Your task to perform on an android device: remove spam from my inbox in the gmail app Image 0: 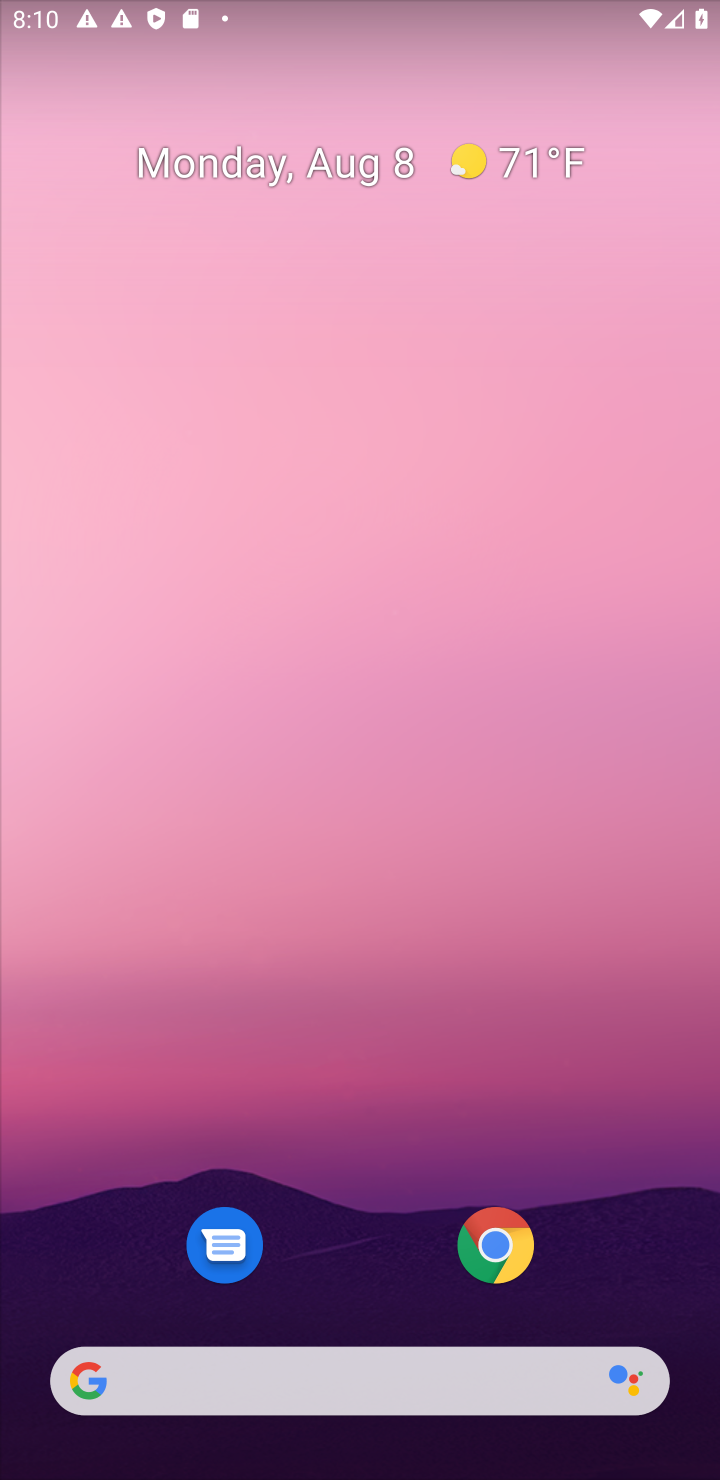
Step 0: drag from (335, 1176) to (501, 18)
Your task to perform on an android device: remove spam from my inbox in the gmail app Image 1: 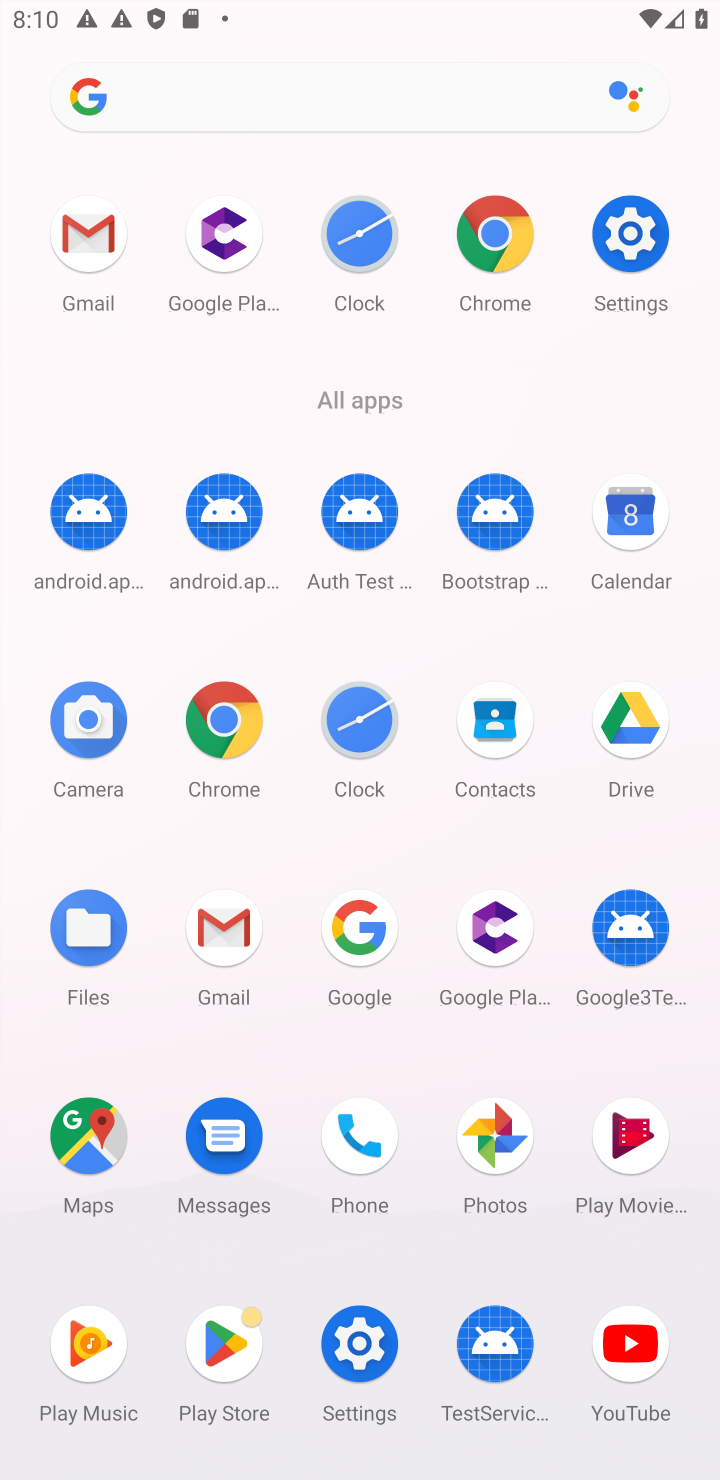
Step 1: click (216, 1079)
Your task to perform on an android device: remove spam from my inbox in the gmail app Image 2: 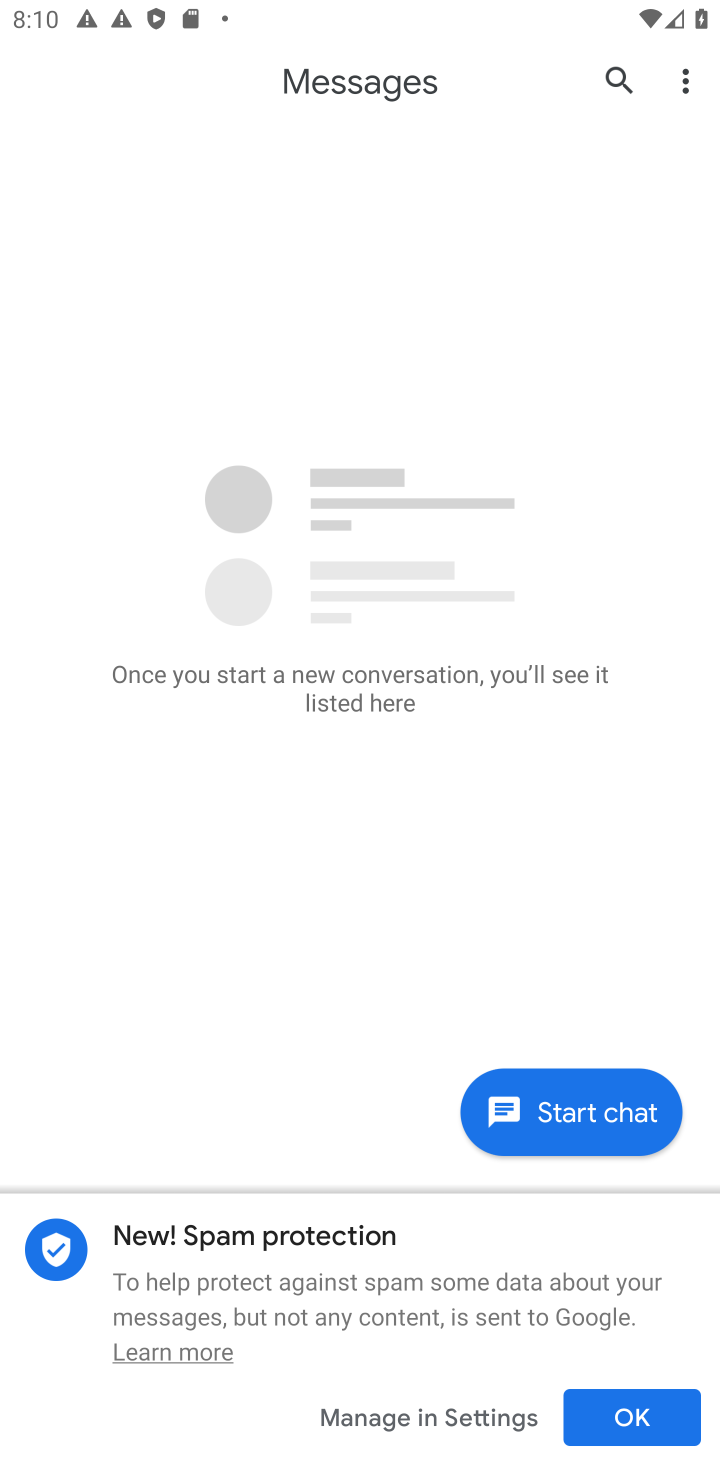
Step 2: click (223, 938)
Your task to perform on an android device: remove spam from my inbox in the gmail app Image 3: 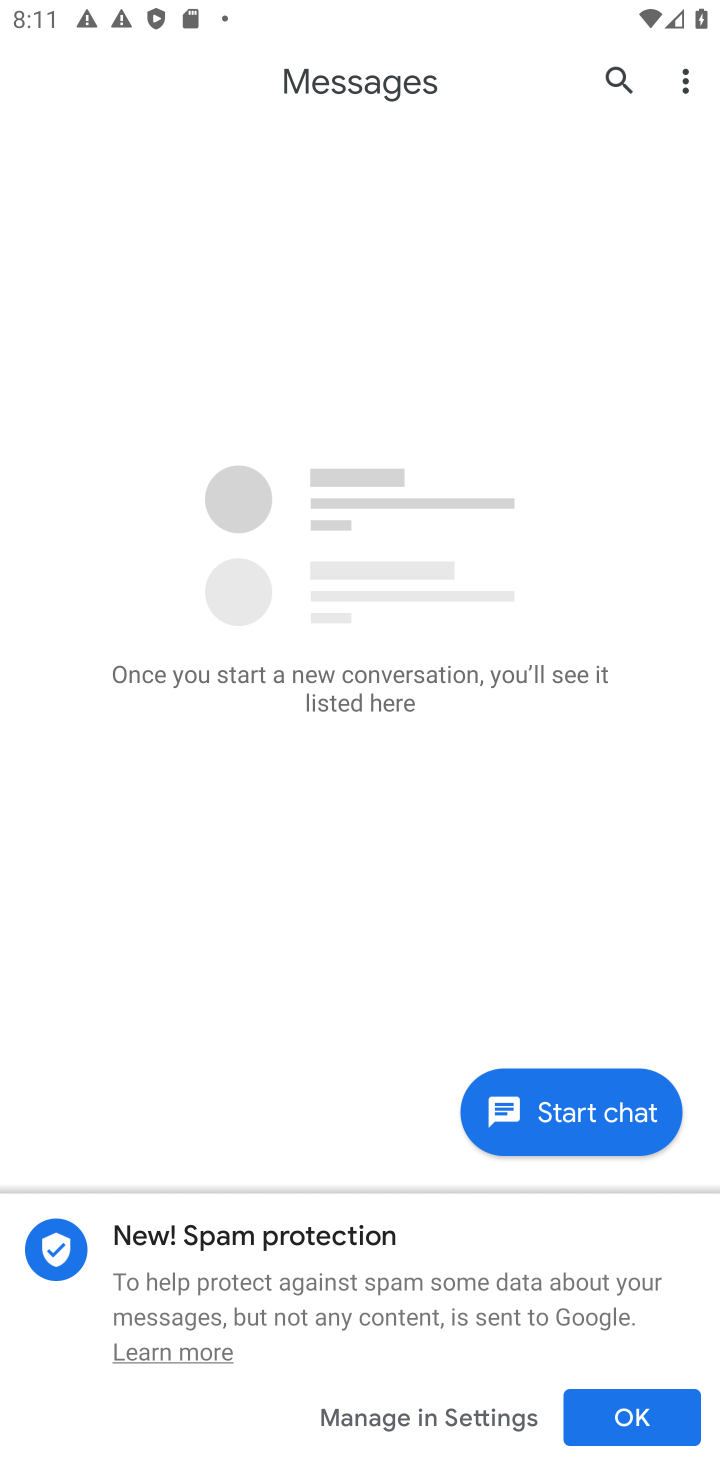
Step 3: press home button
Your task to perform on an android device: remove spam from my inbox in the gmail app Image 4: 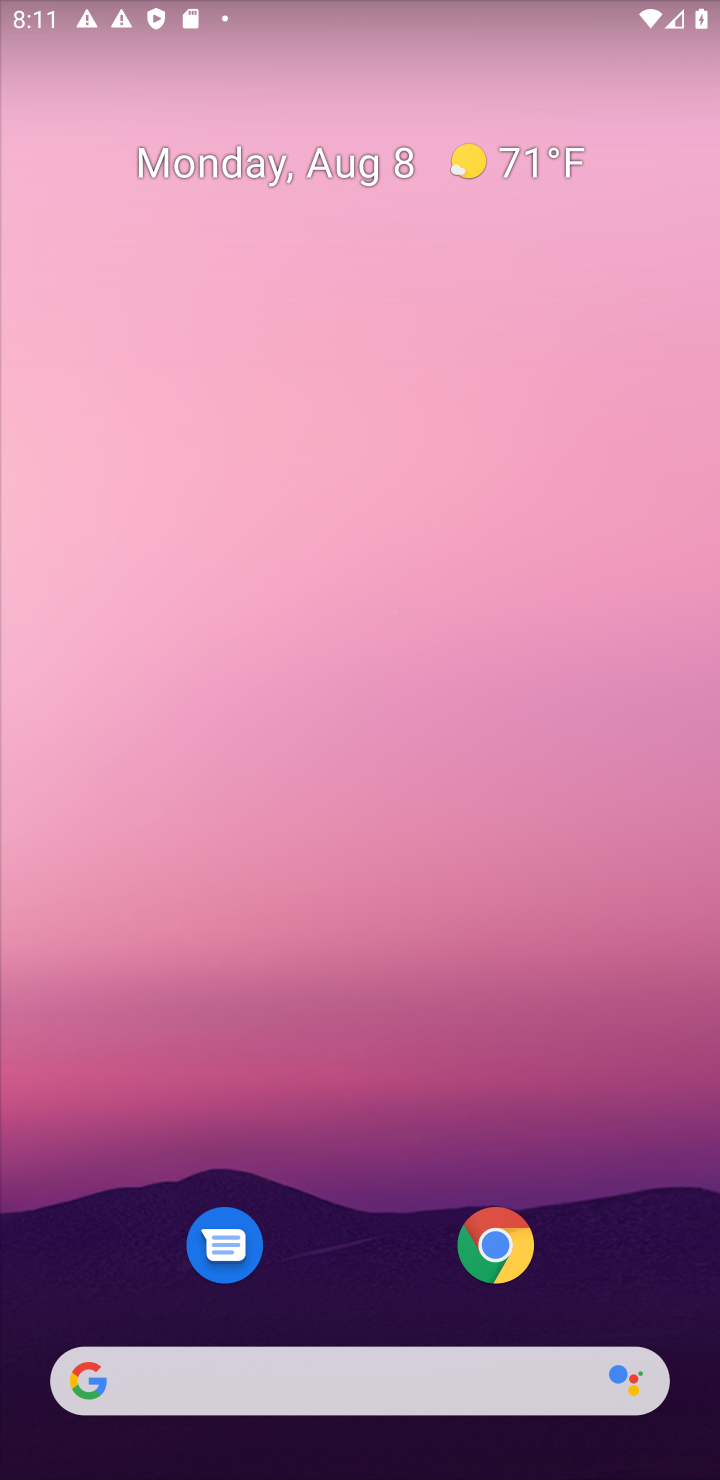
Step 4: drag from (291, 1081) to (439, 2)
Your task to perform on an android device: remove spam from my inbox in the gmail app Image 5: 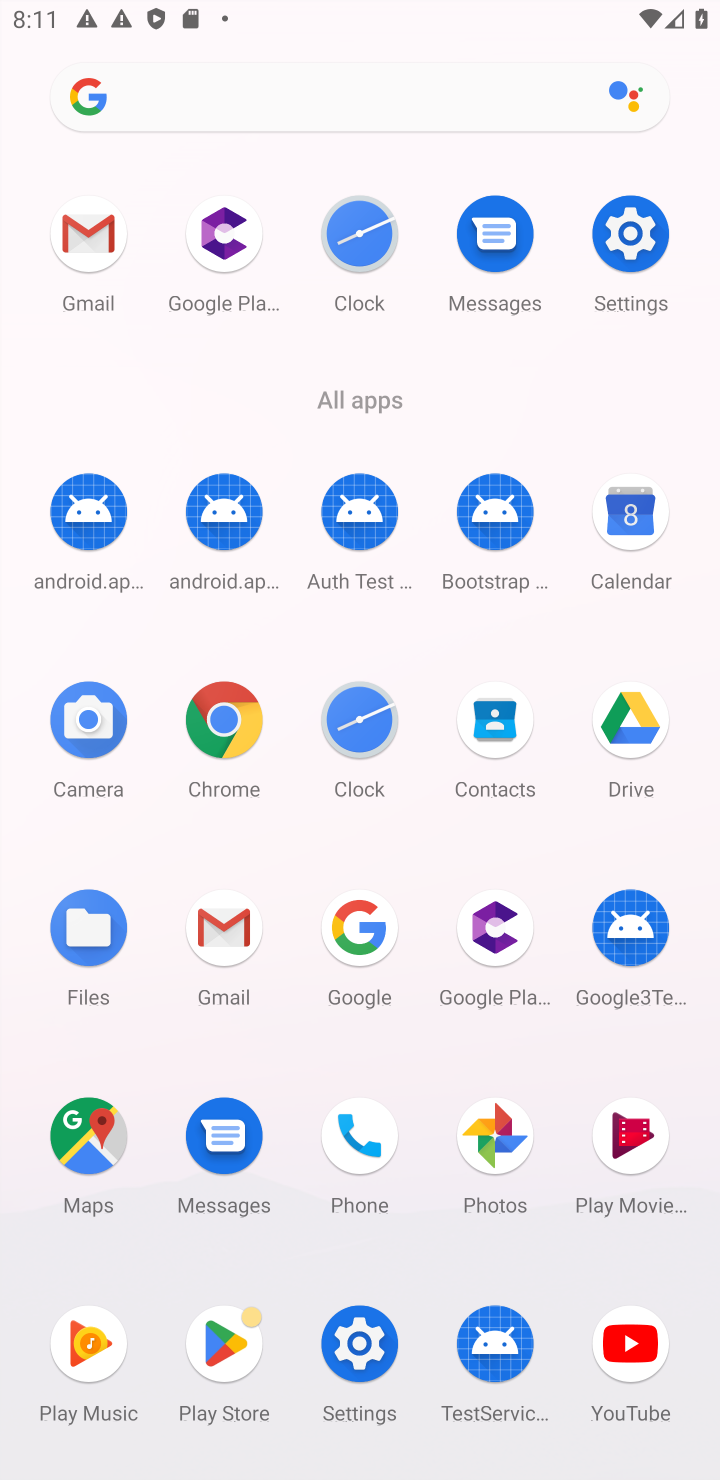
Step 5: click (214, 971)
Your task to perform on an android device: remove spam from my inbox in the gmail app Image 6: 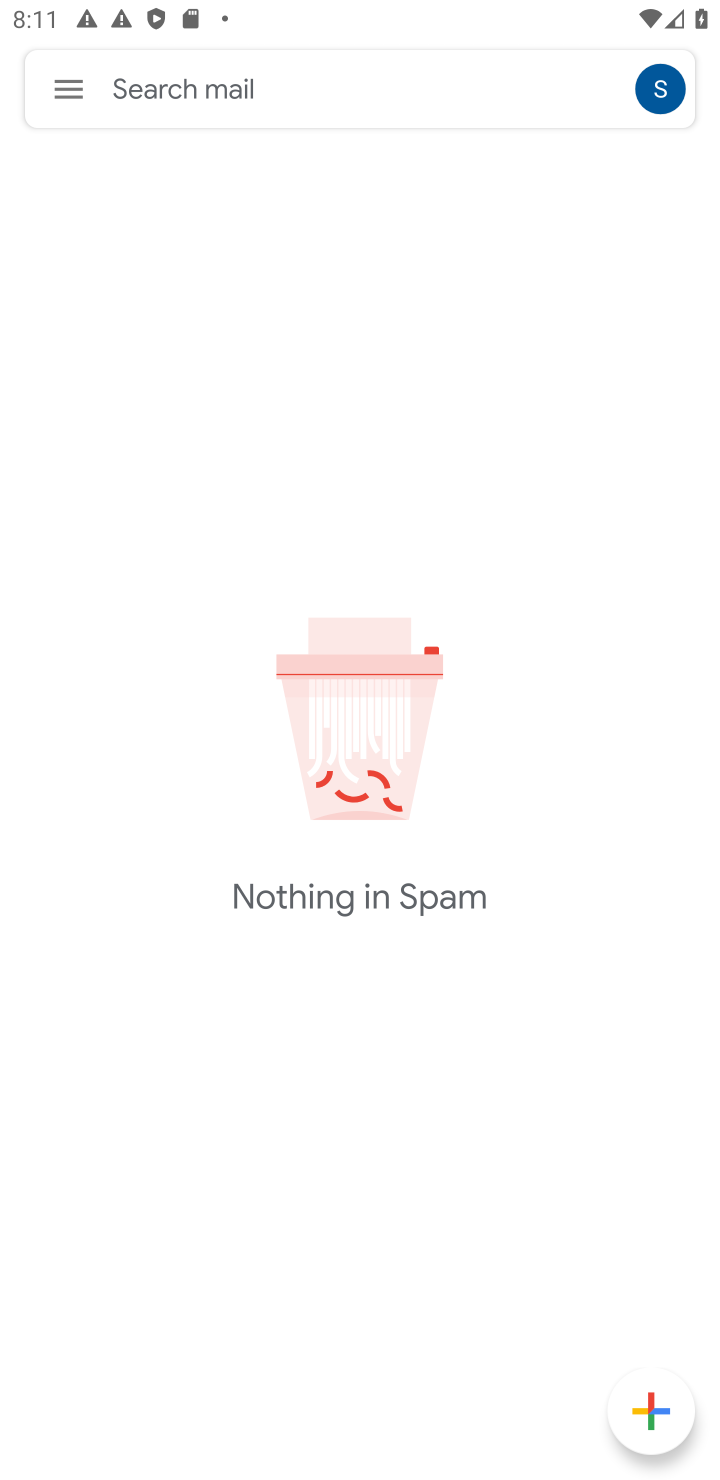
Step 6: task complete